Your task to perform on an android device: open chrome privacy settings Image 0: 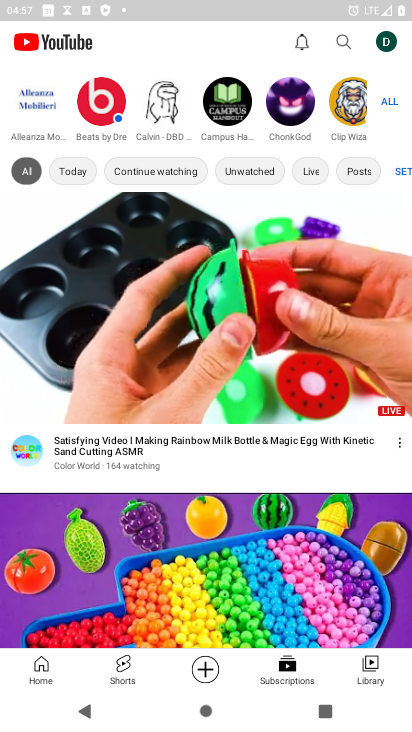
Step 0: press home button
Your task to perform on an android device: open chrome privacy settings Image 1: 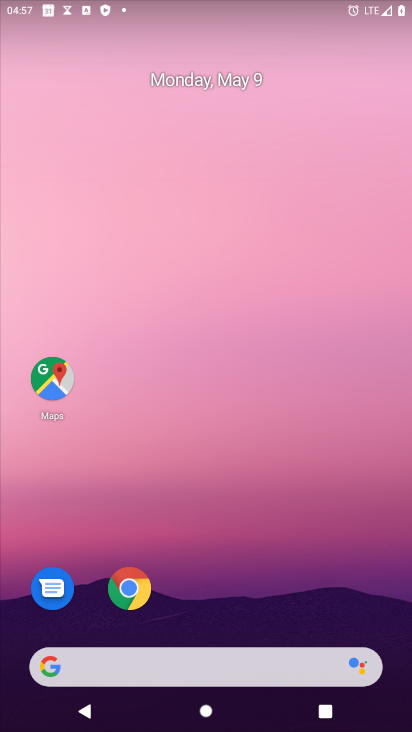
Step 1: click (126, 595)
Your task to perform on an android device: open chrome privacy settings Image 2: 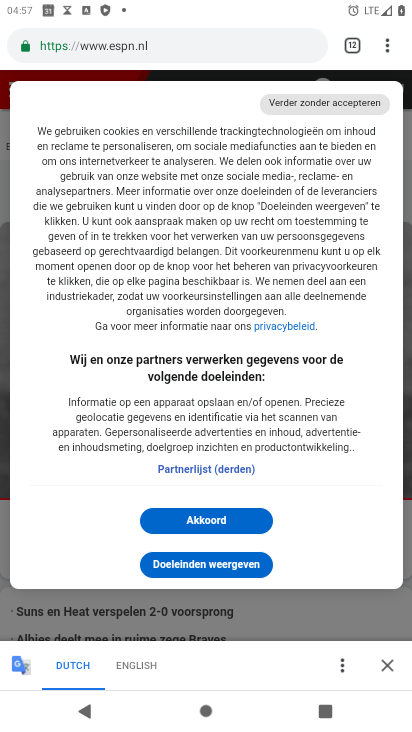
Step 2: click (392, 47)
Your task to perform on an android device: open chrome privacy settings Image 3: 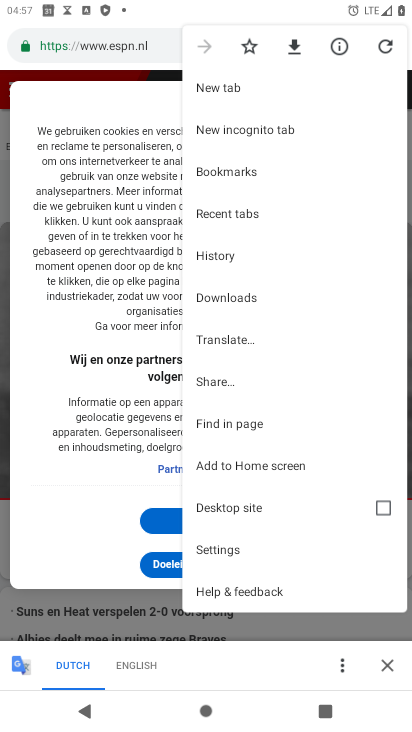
Step 3: click (228, 549)
Your task to perform on an android device: open chrome privacy settings Image 4: 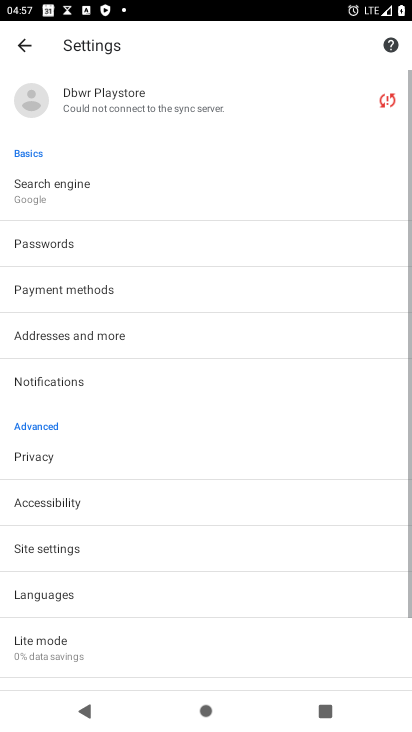
Step 4: click (65, 455)
Your task to perform on an android device: open chrome privacy settings Image 5: 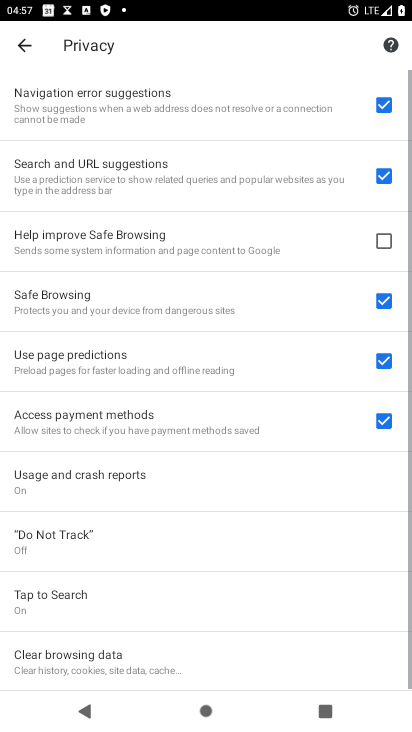
Step 5: task complete